Your task to perform on an android device: turn off notifications in google photos Image 0: 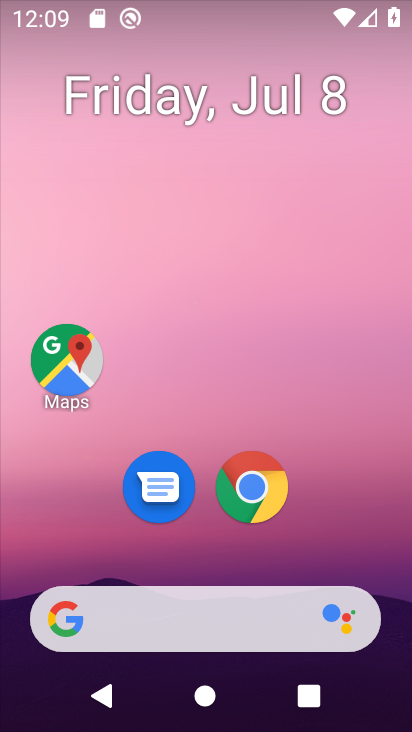
Step 0: drag from (388, 549) to (378, 144)
Your task to perform on an android device: turn off notifications in google photos Image 1: 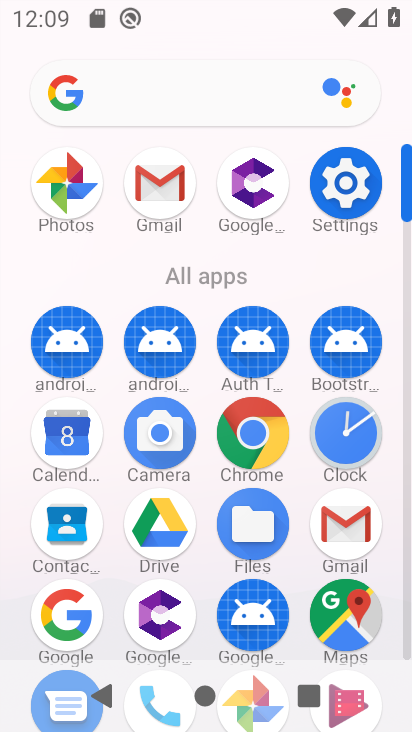
Step 1: drag from (394, 576) to (393, 353)
Your task to perform on an android device: turn off notifications in google photos Image 2: 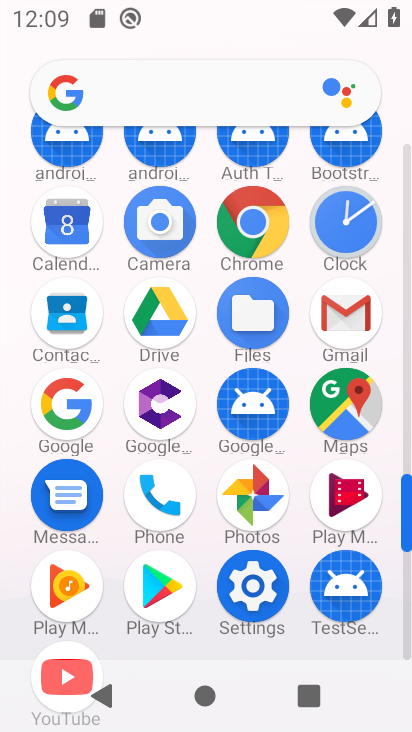
Step 2: click (253, 496)
Your task to perform on an android device: turn off notifications in google photos Image 3: 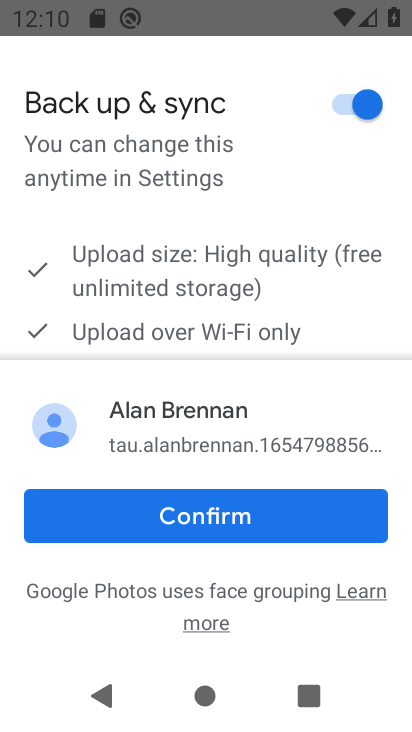
Step 3: click (186, 523)
Your task to perform on an android device: turn off notifications in google photos Image 4: 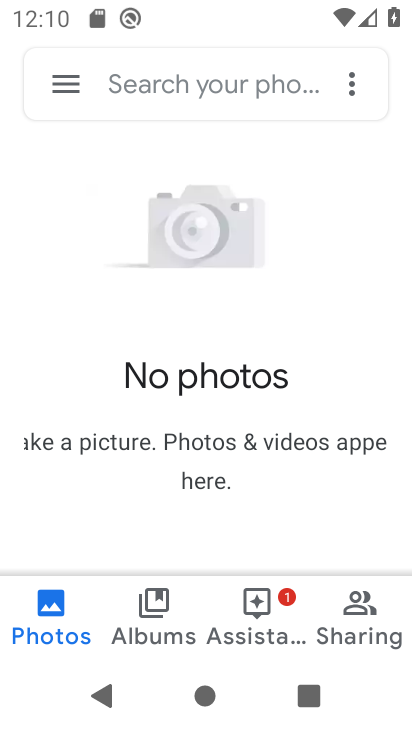
Step 4: click (71, 85)
Your task to perform on an android device: turn off notifications in google photos Image 5: 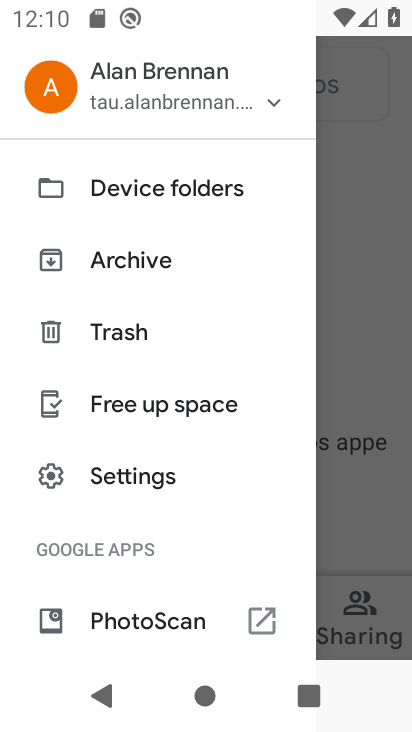
Step 5: click (195, 485)
Your task to perform on an android device: turn off notifications in google photos Image 6: 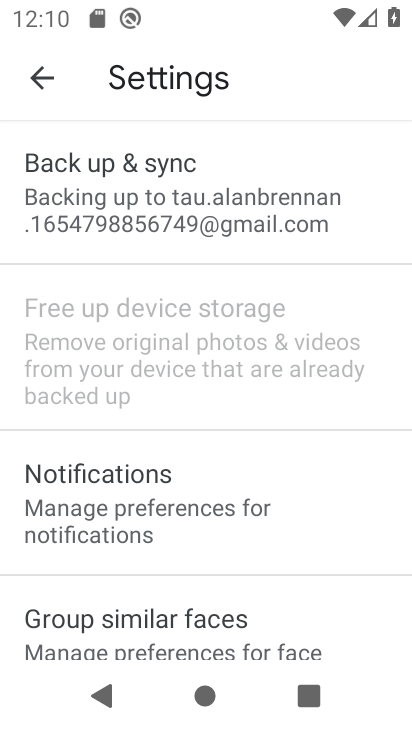
Step 6: drag from (272, 537) to (300, 291)
Your task to perform on an android device: turn off notifications in google photos Image 7: 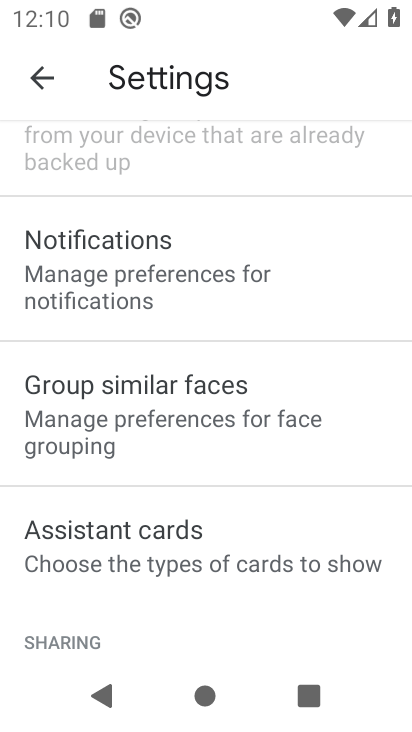
Step 7: click (300, 290)
Your task to perform on an android device: turn off notifications in google photos Image 8: 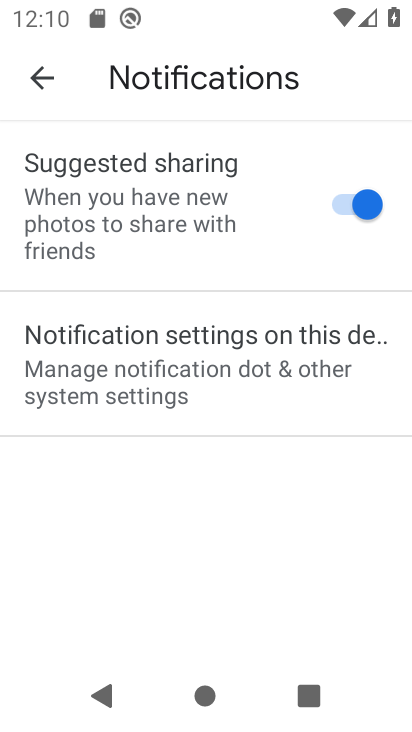
Step 8: click (284, 366)
Your task to perform on an android device: turn off notifications in google photos Image 9: 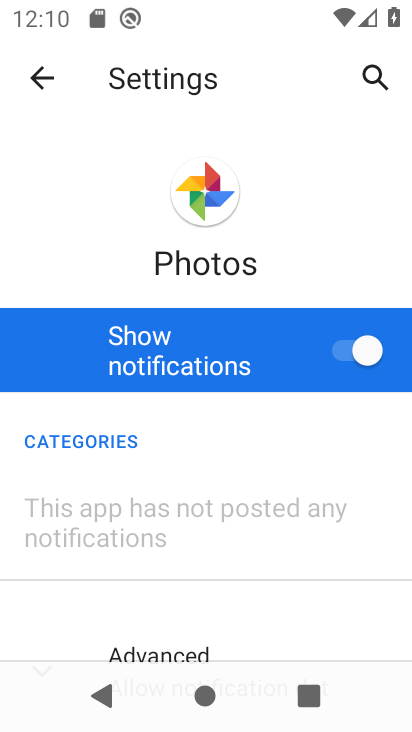
Step 9: click (361, 355)
Your task to perform on an android device: turn off notifications in google photos Image 10: 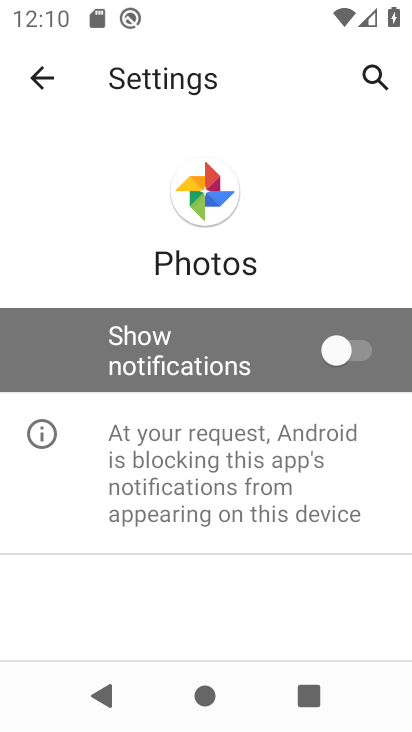
Step 10: task complete